Your task to perform on an android device: Open Chrome and go to the settings page Image 0: 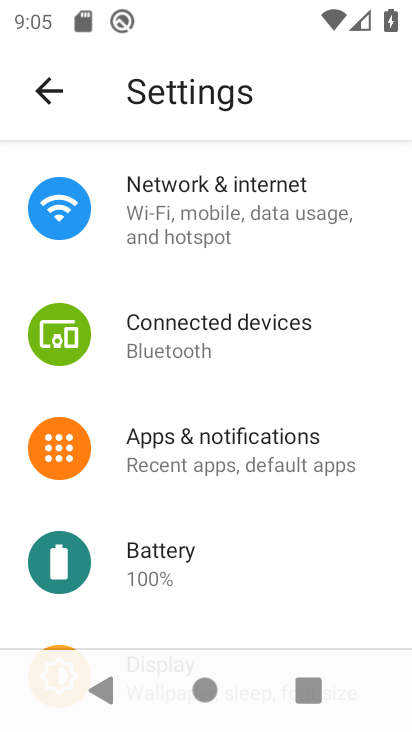
Step 0: press home button
Your task to perform on an android device: Open Chrome and go to the settings page Image 1: 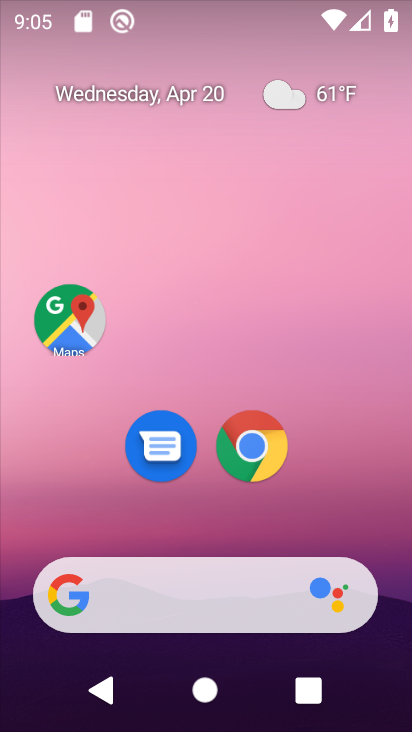
Step 1: click (277, 439)
Your task to perform on an android device: Open Chrome and go to the settings page Image 2: 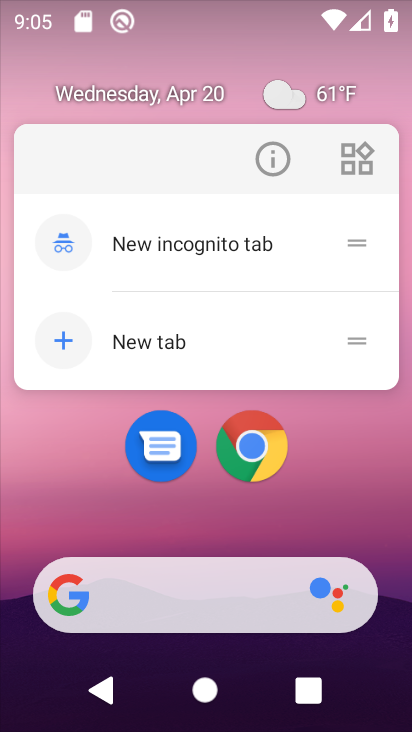
Step 2: click (282, 458)
Your task to perform on an android device: Open Chrome and go to the settings page Image 3: 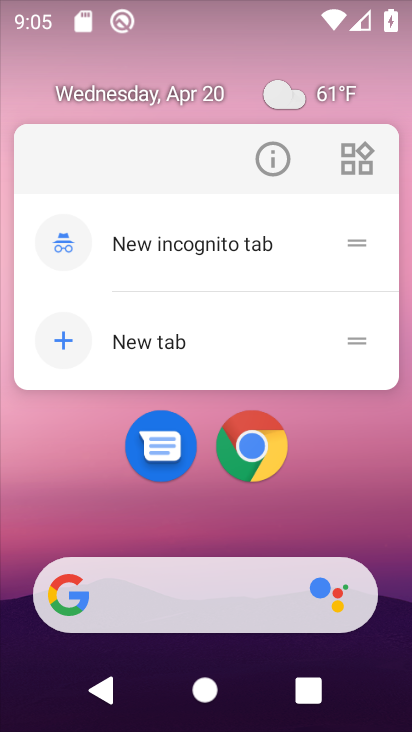
Step 3: drag from (347, 478) to (335, 74)
Your task to perform on an android device: Open Chrome and go to the settings page Image 4: 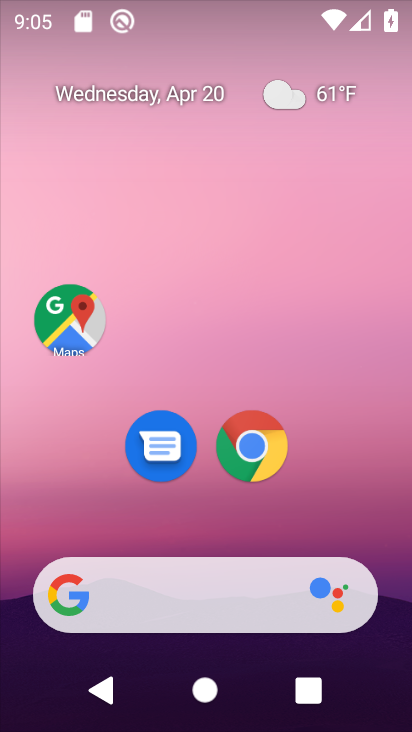
Step 4: drag from (369, 513) to (366, 132)
Your task to perform on an android device: Open Chrome and go to the settings page Image 5: 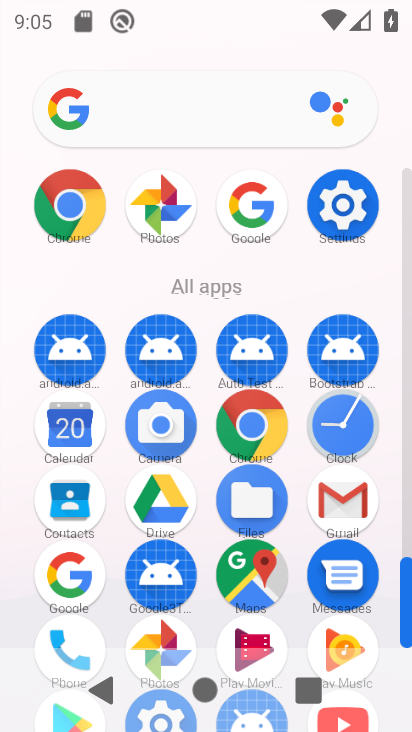
Step 5: click (79, 226)
Your task to perform on an android device: Open Chrome and go to the settings page Image 6: 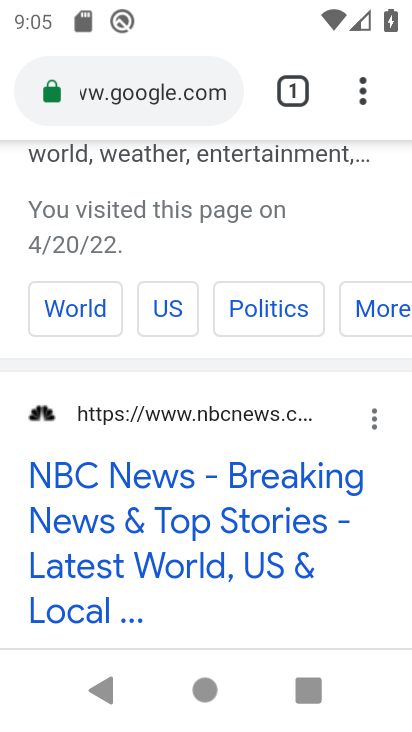
Step 6: drag from (366, 107) to (229, 467)
Your task to perform on an android device: Open Chrome and go to the settings page Image 7: 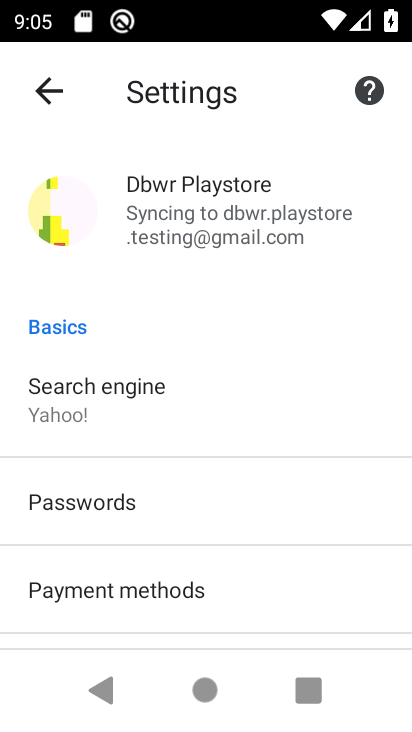
Step 7: drag from (288, 569) to (313, 317)
Your task to perform on an android device: Open Chrome and go to the settings page Image 8: 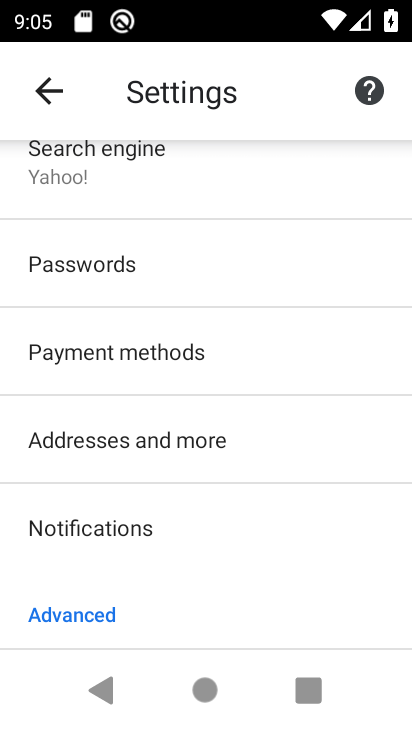
Step 8: drag from (269, 522) to (313, 220)
Your task to perform on an android device: Open Chrome and go to the settings page Image 9: 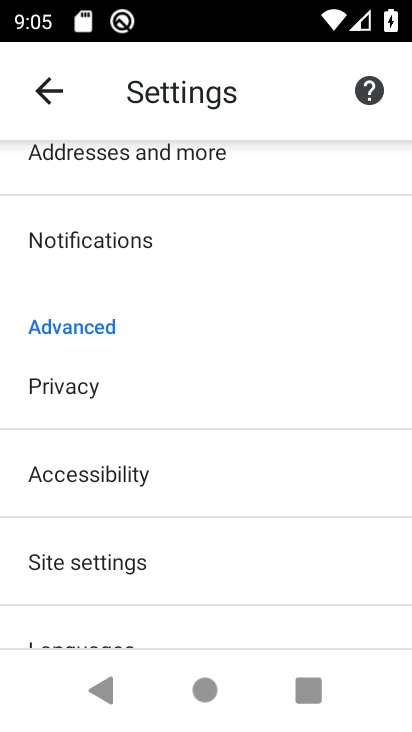
Step 9: drag from (271, 525) to (271, 287)
Your task to perform on an android device: Open Chrome and go to the settings page Image 10: 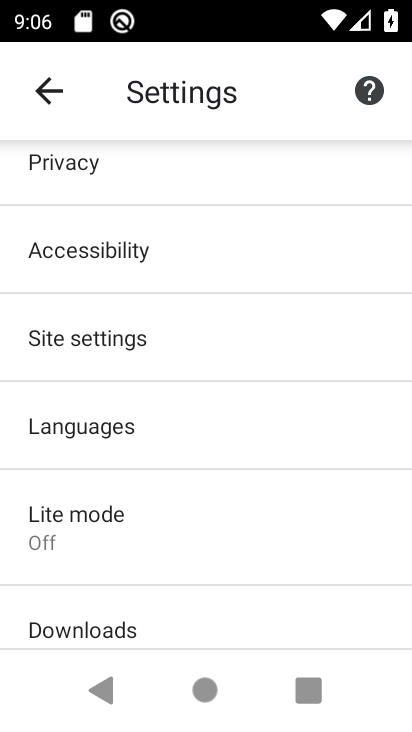
Step 10: click (192, 347)
Your task to perform on an android device: Open Chrome and go to the settings page Image 11: 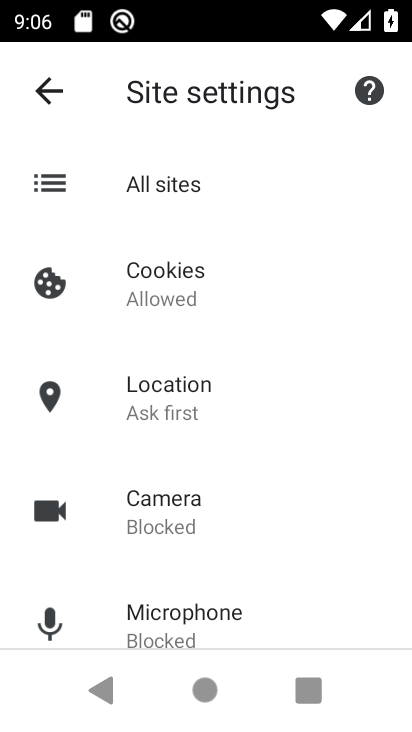
Step 11: task complete